Your task to perform on an android device: Open Amazon Image 0: 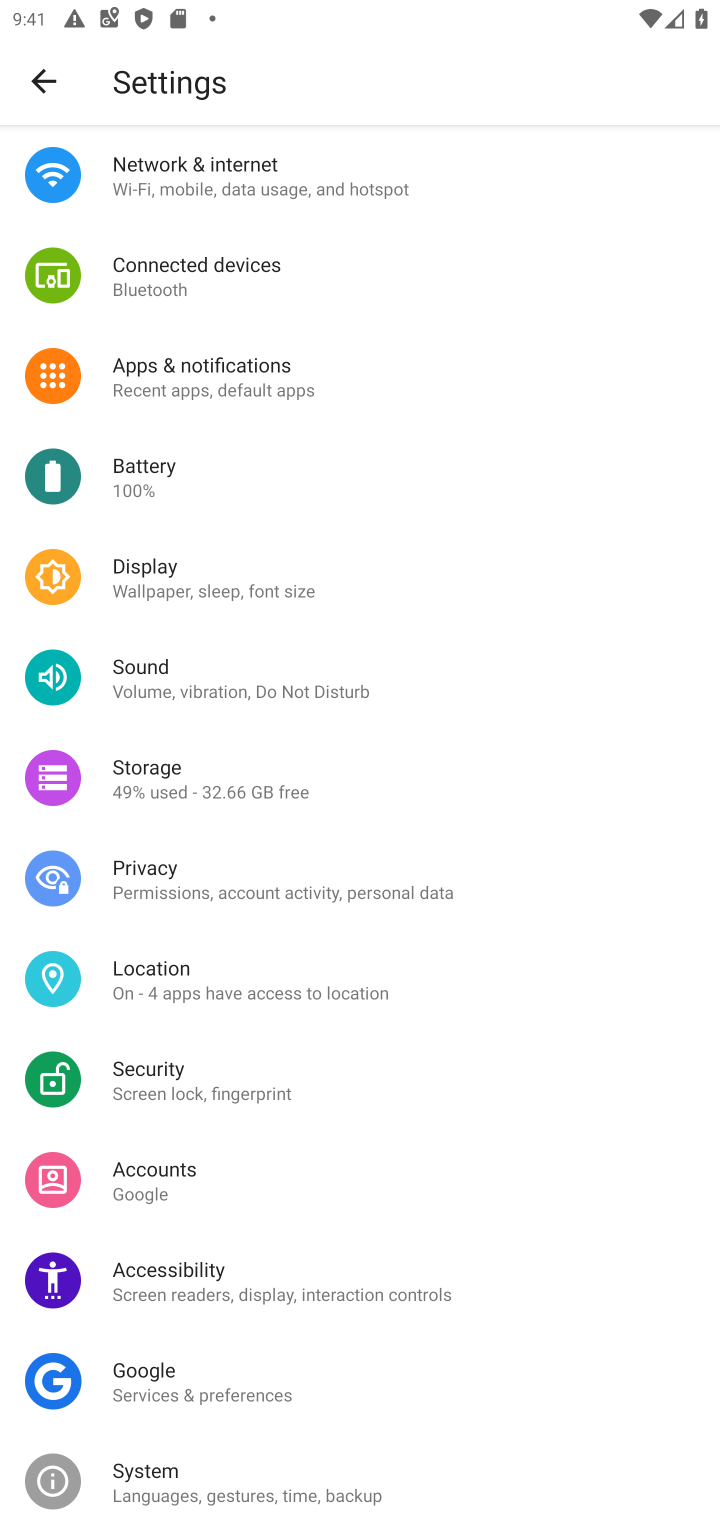
Step 0: press home button
Your task to perform on an android device: Open Amazon Image 1: 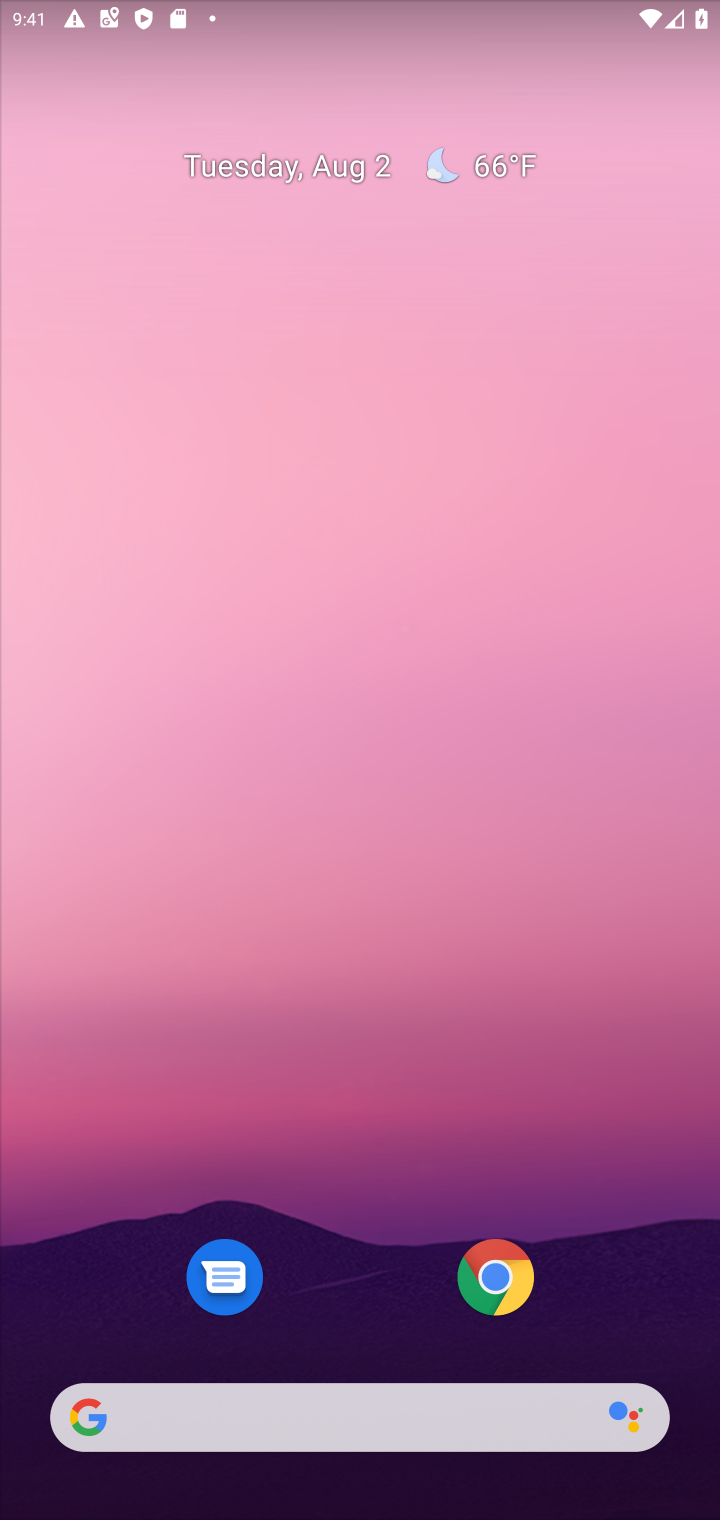
Step 1: click (480, 1287)
Your task to perform on an android device: Open Amazon Image 2: 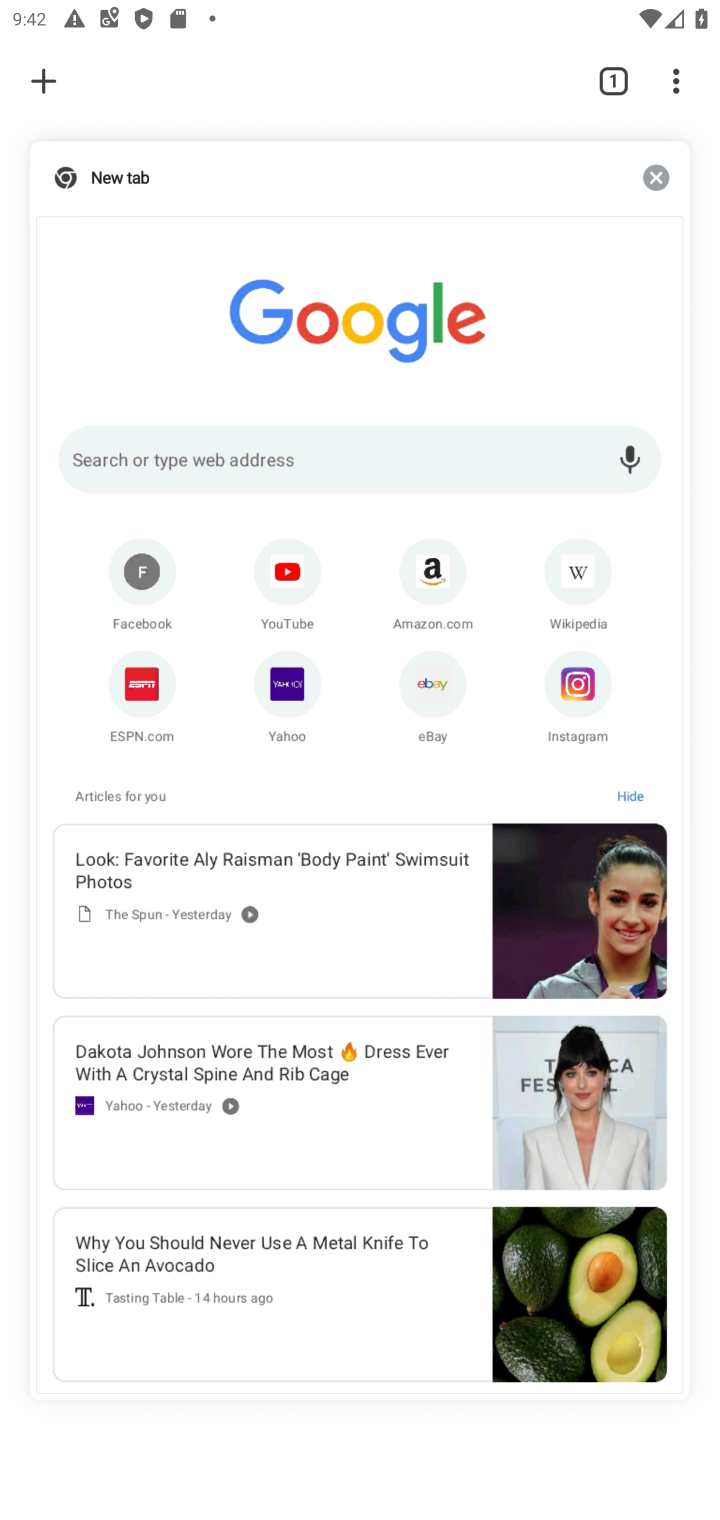
Step 2: click (433, 570)
Your task to perform on an android device: Open Amazon Image 3: 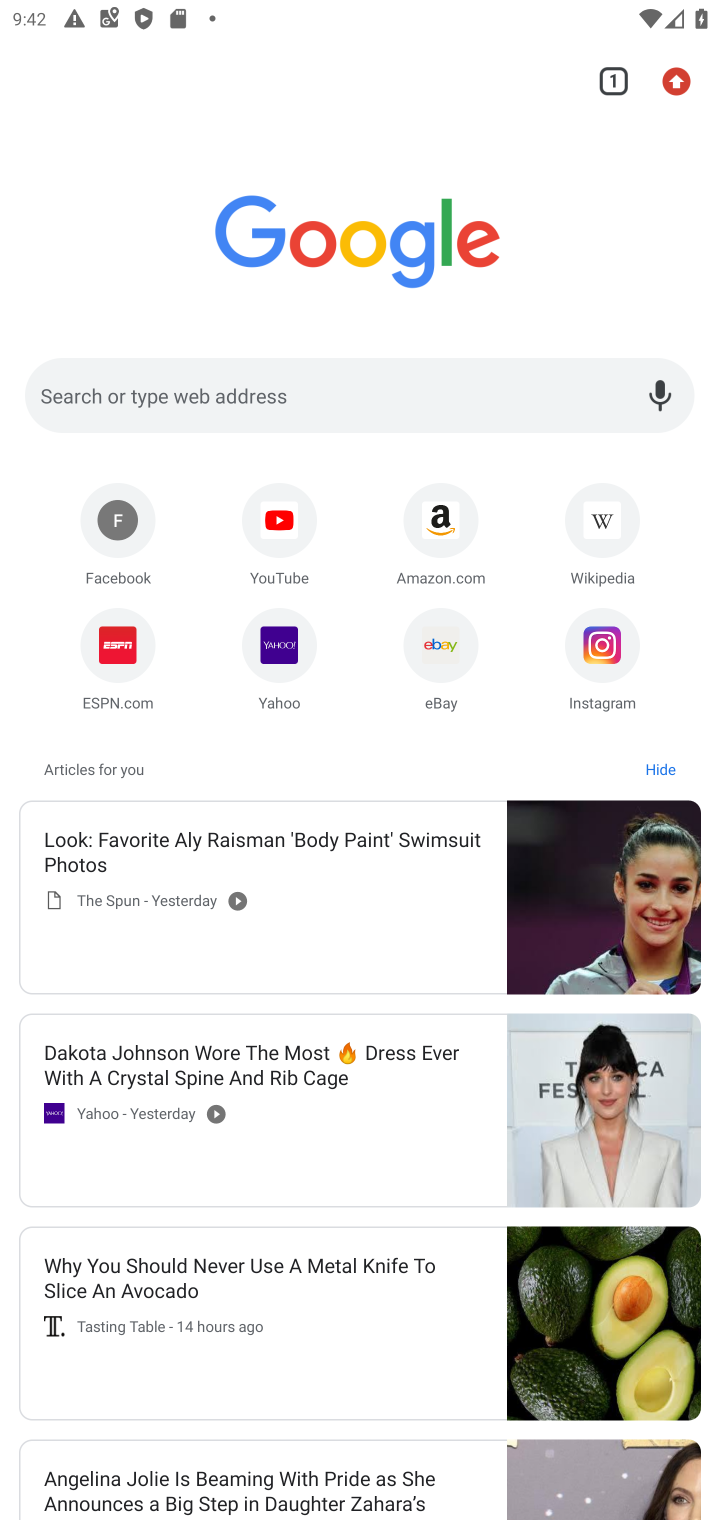
Step 3: click (440, 530)
Your task to perform on an android device: Open Amazon Image 4: 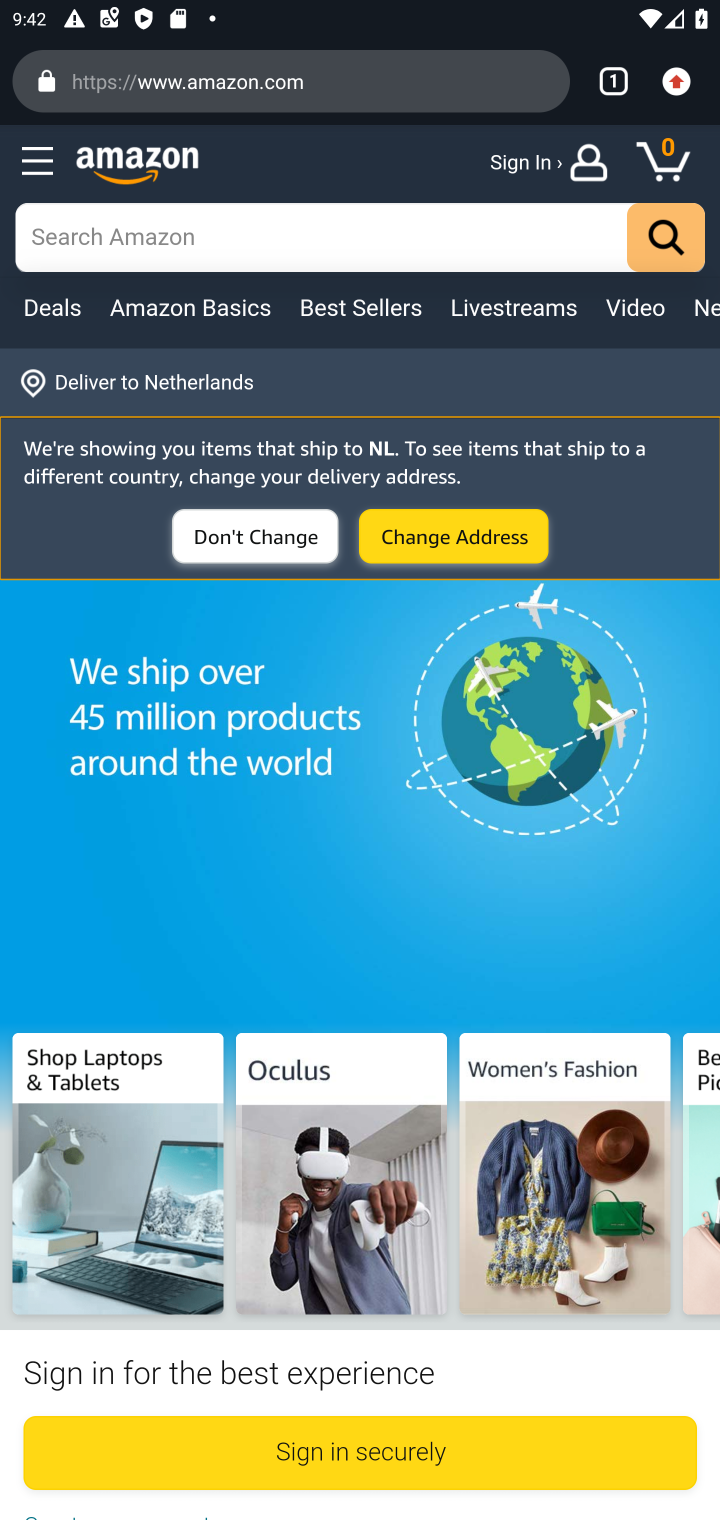
Step 4: task complete